Your task to perform on an android device: choose inbox layout in the gmail app Image 0: 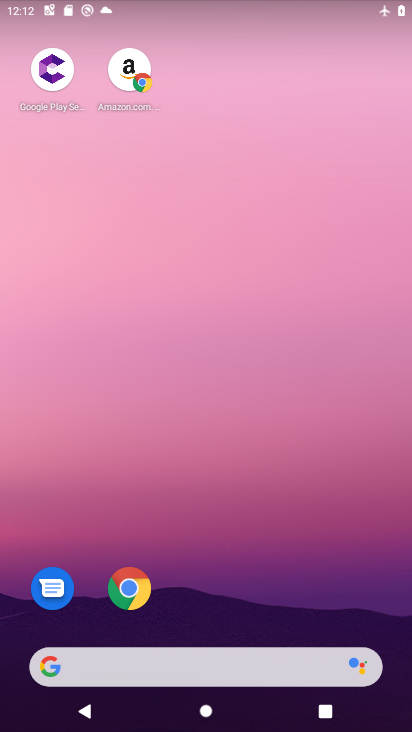
Step 0: drag from (229, 596) to (222, 63)
Your task to perform on an android device: choose inbox layout in the gmail app Image 1: 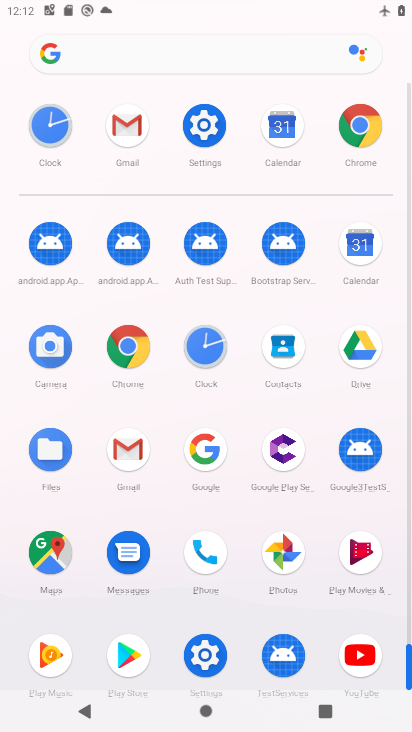
Step 1: click (143, 454)
Your task to perform on an android device: choose inbox layout in the gmail app Image 2: 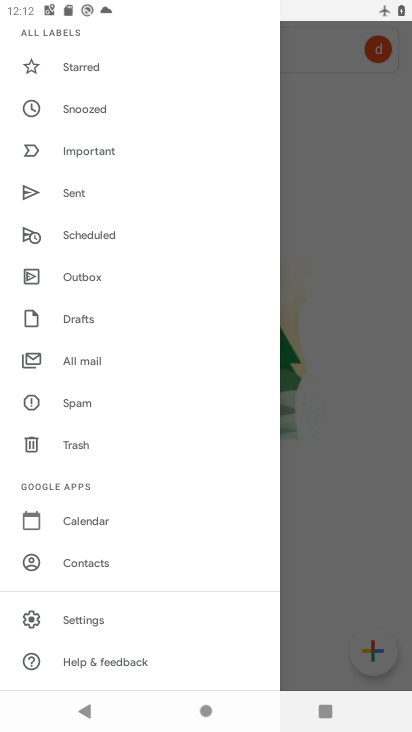
Step 2: click (140, 605)
Your task to perform on an android device: choose inbox layout in the gmail app Image 3: 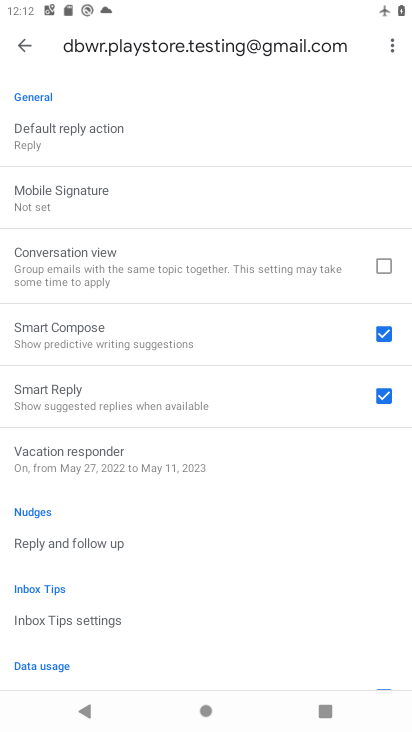
Step 3: click (70, 705)
Your task to perform on an android device: choose inbox layout in the gmail app Image 4: 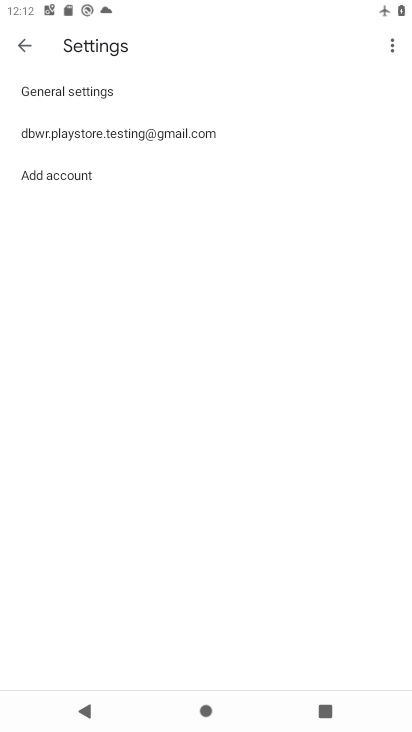
Step 4: drag from (197, 162) to (176, 445)
Your task to perform on an android device: choose inbox layout in the gmail app Image 5: 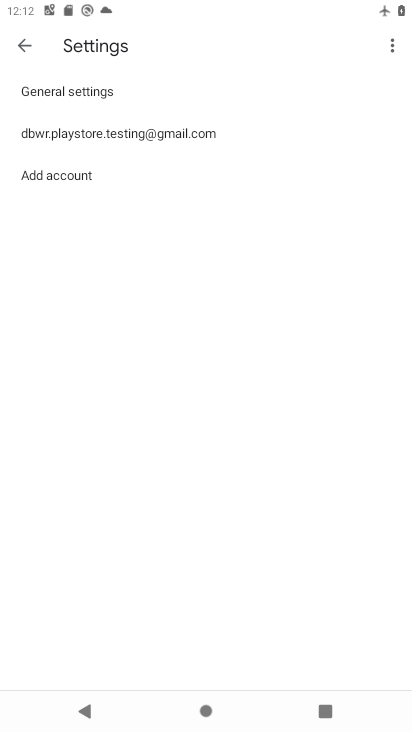
Step 5: click (219, 133)
Your task to perform on an android device: choose inbox layout in the gmail app Image 6: 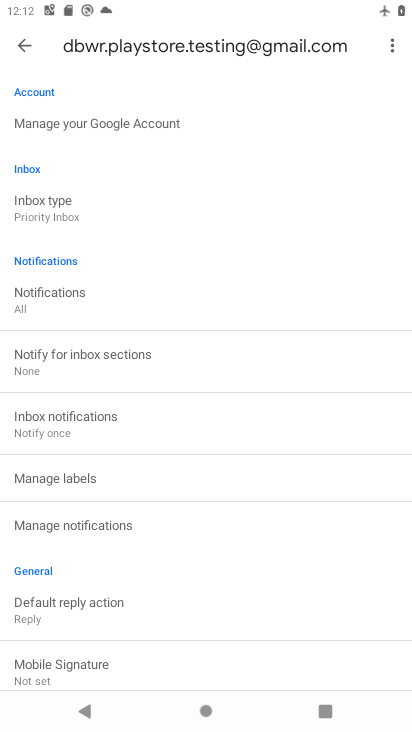
Step 6: click (93, 211)
Your task to perform on an android device: choose inbox layout in the gmail app Image 7: 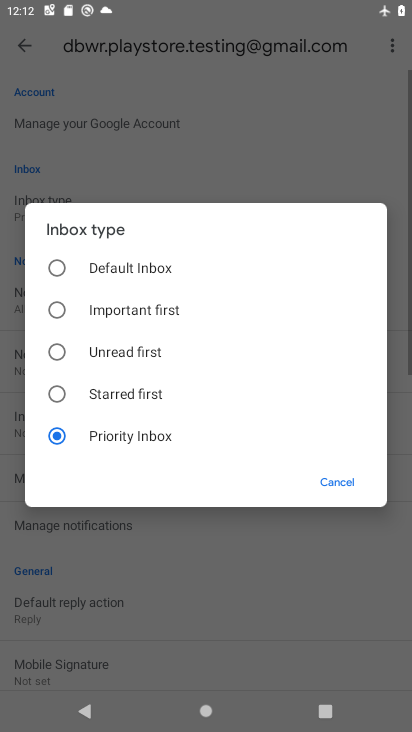
Step 7: click (154, 270)
Your task to perform on an android device: choose inbox layout in the gmail app Image 8: 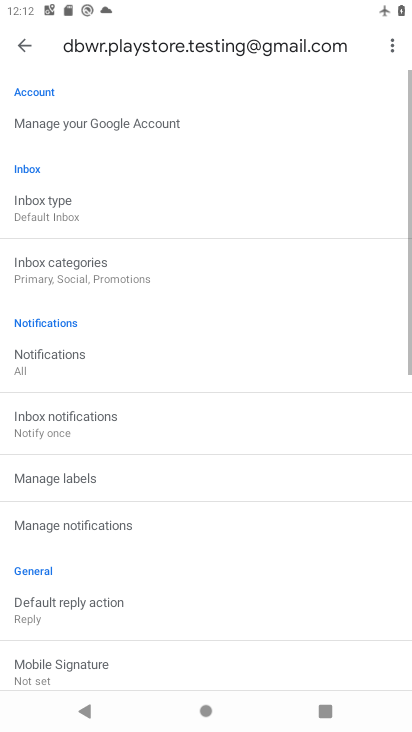
Step 8: task complete